Your task to perform on an android device: set the timer Image 0: 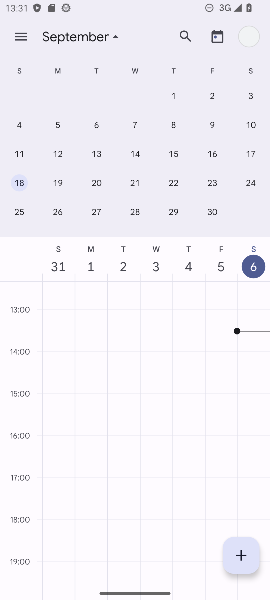
Step 0: press home button
Your task to perform on an android device: set the timer Image 1: 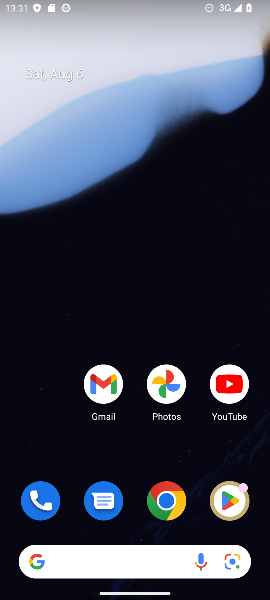
Step 1: drag from (116, 434) to (132, 229)
Your task to perform on an android device: set the timer Image 2: 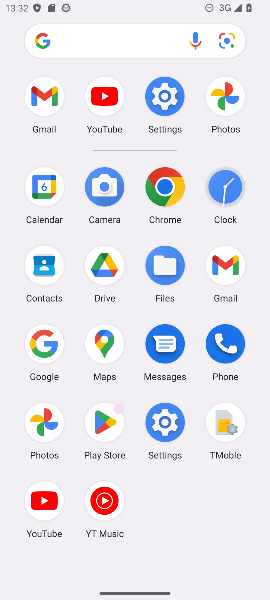
Step 2: click (220, 201)
Your task to perform on an android device: set the timer Image 3: 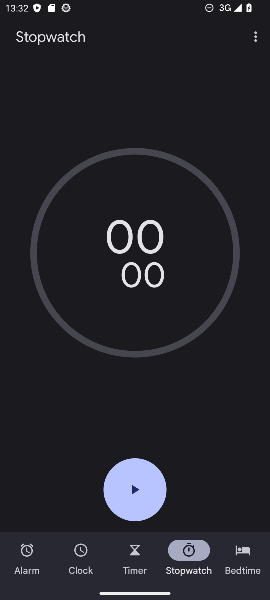
Step 3: click (131, 563)
Your task to perform on an android device: set the timer Image 4: 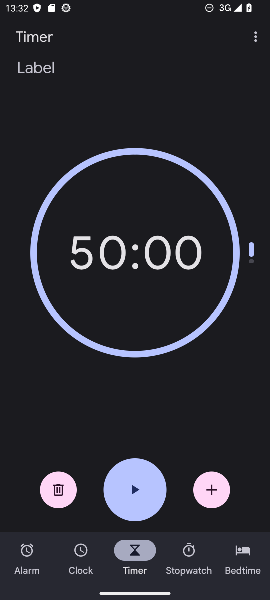
Step 4: click (130, 484)
Your task to perform on an android device: set the timer Image 5: 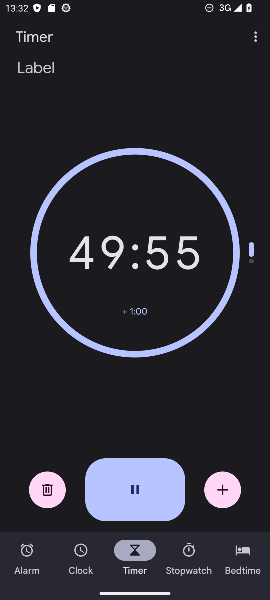
Step 5: click (130, 484)
Your task to perform on an android device: set the timer Image 6: 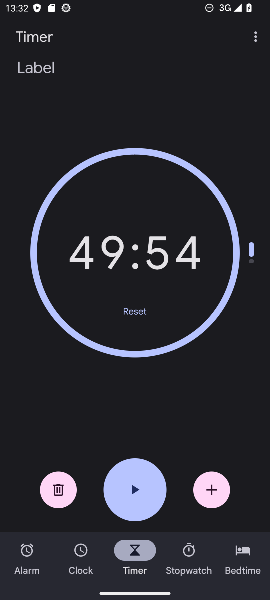
Step 6: click (219, 489)
Your task to perform on an android device: set the timer Image 7: 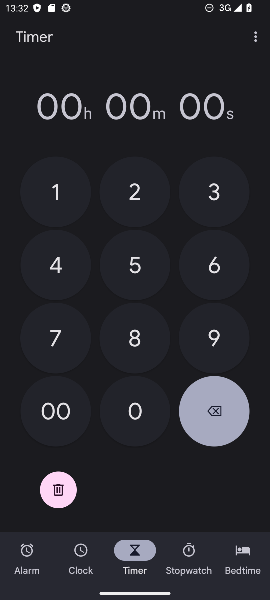
Step 7: task complete